Your task to perform on an android device: toggle wifi Image 0: 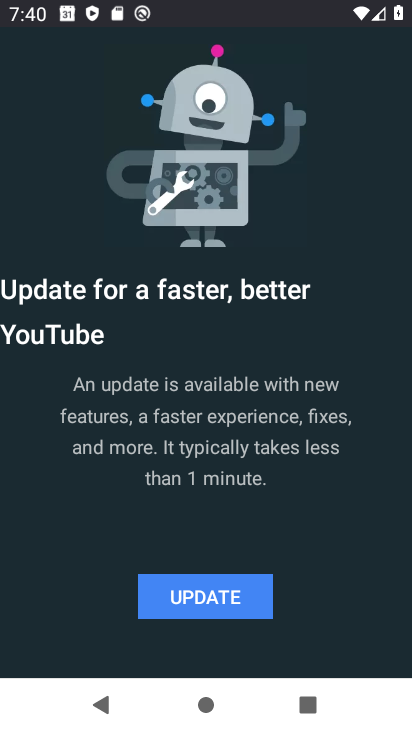
Step 0: press home button
Your task to perform on an android device: toggle wifi Image 1: 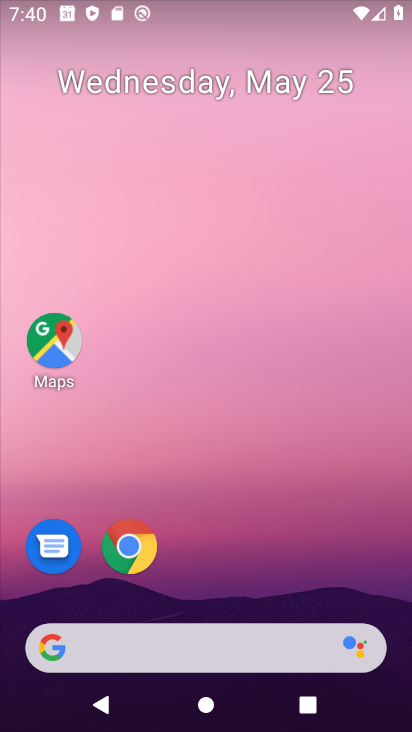
Step 1: drag from (381, 604) to (385, 260)
Your task to perform on an android device: toggle wifi Image 2: 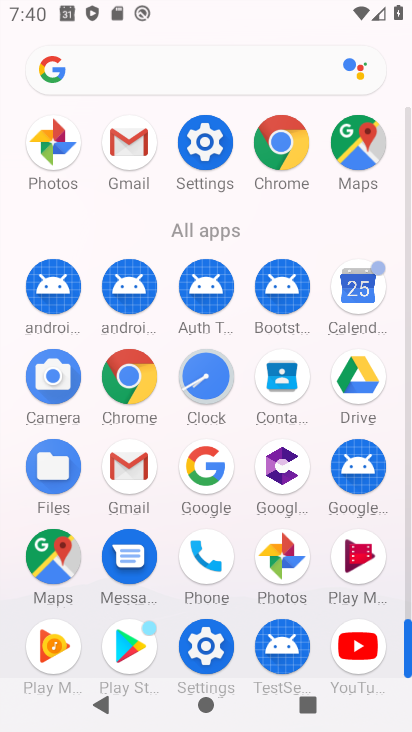
Step 2: click (208, 139)
Your task to perform on an android device: toggle wifi Image 3: 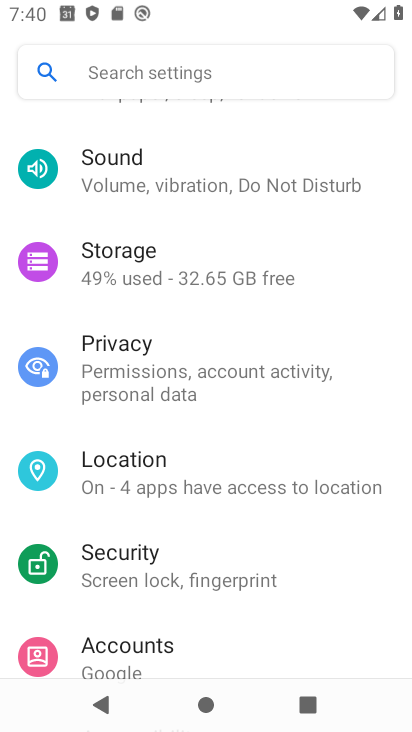
Step 3: drag from (348, 553) to (366, 438)
Your task to perform on an android device: toggle wifi Image 4: 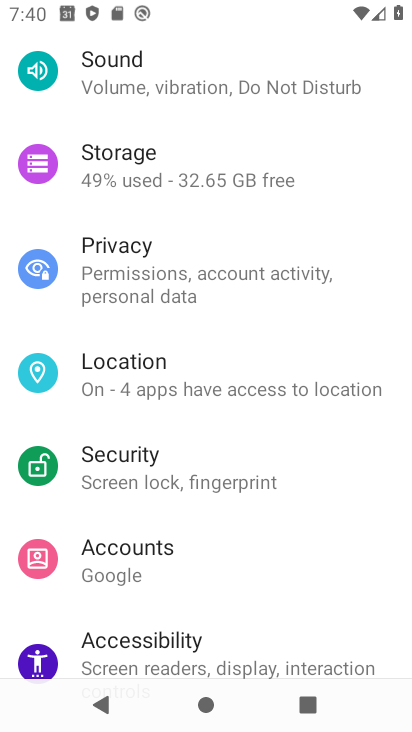
Step 4: drag from (366, 584) to (366, 482)
Your task to perform on an android device: toggle wifi Image 5: 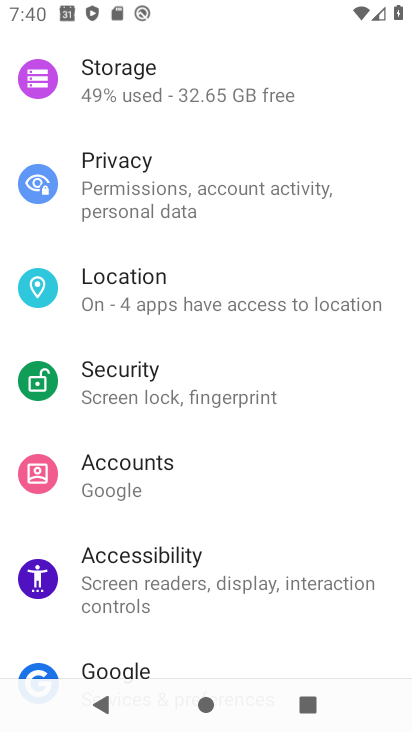
Step 5: drag from (361, 615) to (364, 490)
Your task to perform on an android device: toggle wifi Image 6: 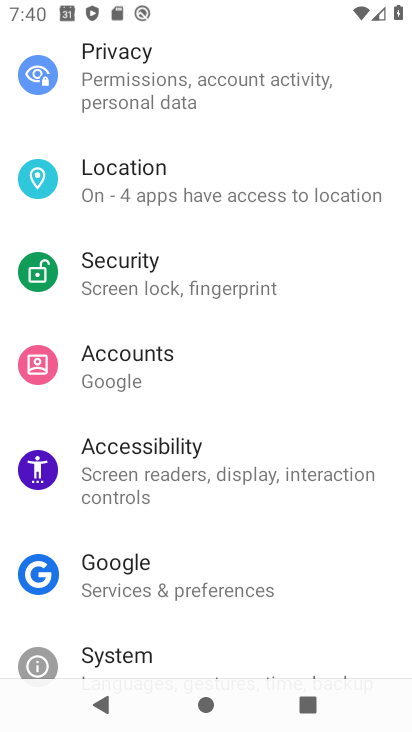
Step 6: drag from (365, 620) to (359, 513)
Your task to perform on an android device: toggle wifi Image 7: 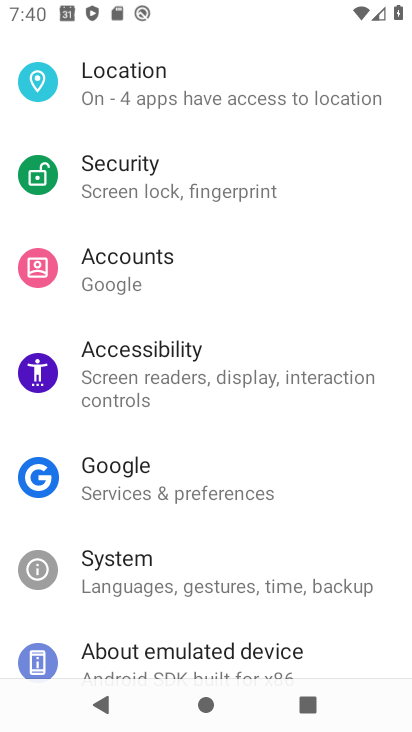
Step 7: drag from (363, 624) to (352, 498)
Your task to perform on an android device: toggle wifi Image 8: 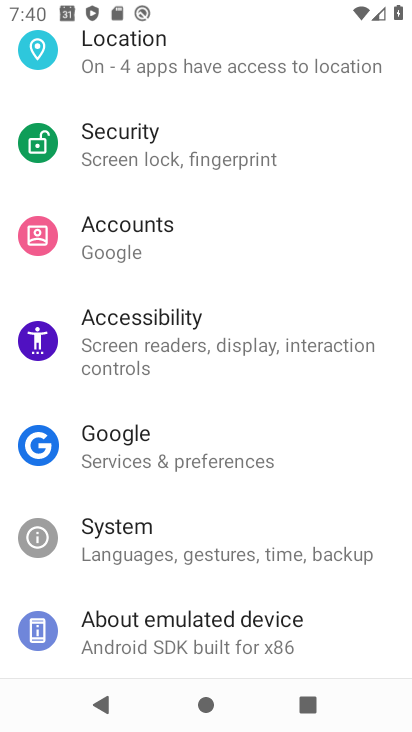
Step 8: drag from (355, 410) to (358, 490)
Your task to perform on an android device: toggle wifi Image 9: 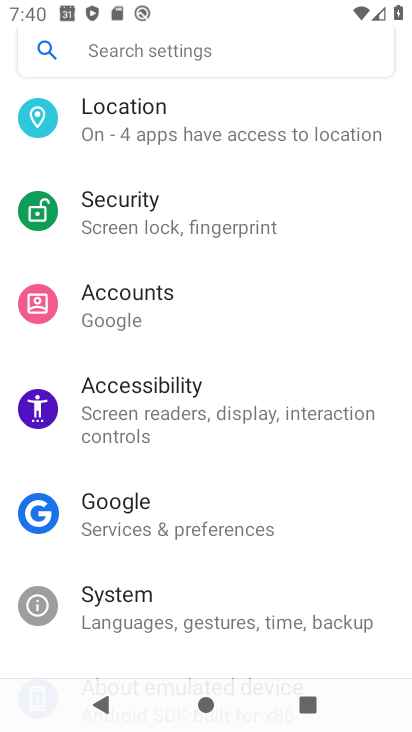
Step 9: drag from (356, 362) to (355, 450)
Your task to perform on an android device: toggle wifi Image 10: 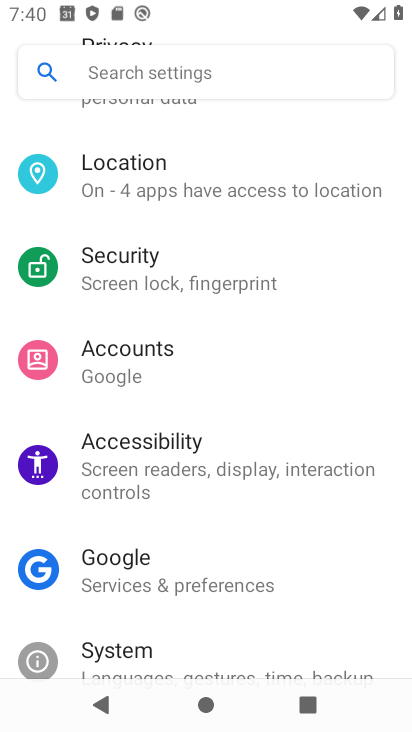
Step 10: drag from (363, 331) to (354, 413)
Your task to perform on an android device: toggle wifi Image 11: 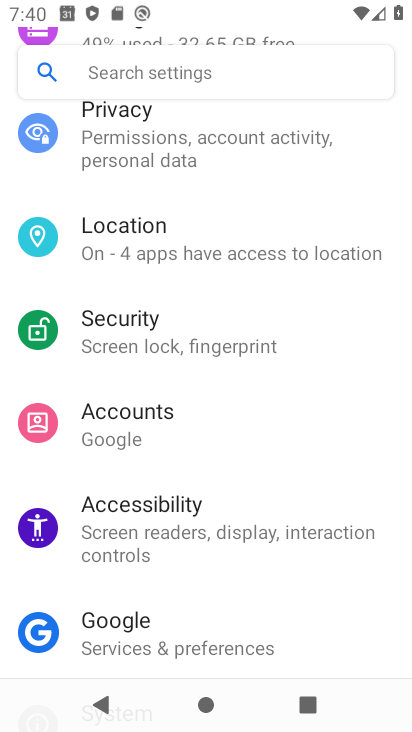
Step 11: drag from (365, 365) to (363, 421)
Your task to perform on an android device: toggle wifi Image 12: 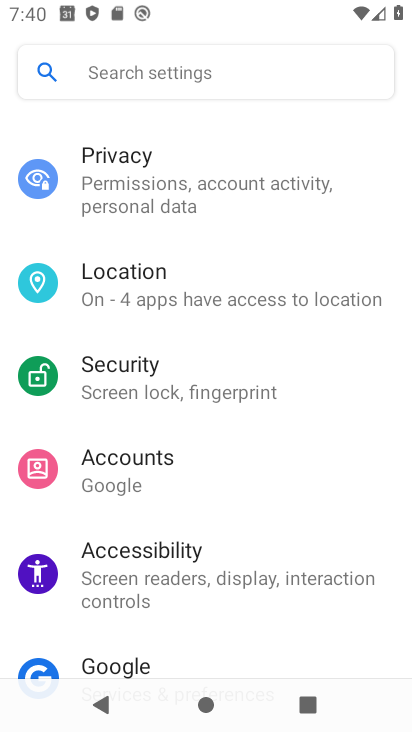
Step 12: drag from (375, 284) to (378, 363)
Your task to perform on an android device: toggle wifi Image 13: 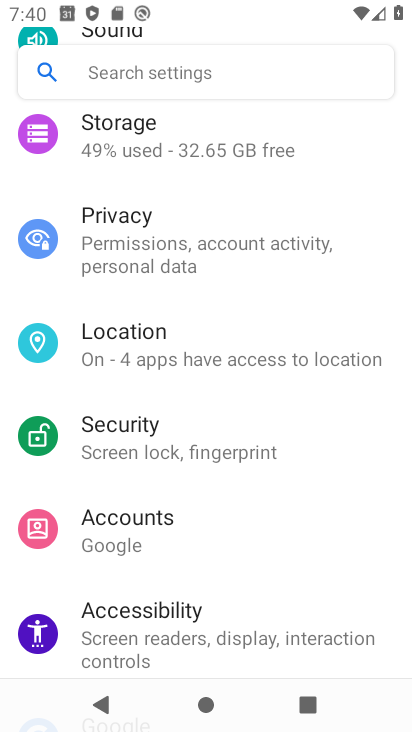
Step 13: drag from (379, 278) to (381, 359)
Your task to perform on an android device: toggle wifi Image 14: 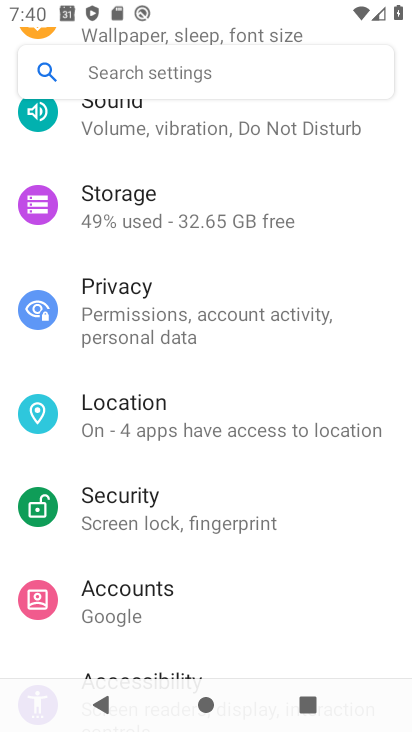
Step 14: drag from (385, 275) to (382, 356)
Your task to perform on an android device: toggle wifi Image 15: 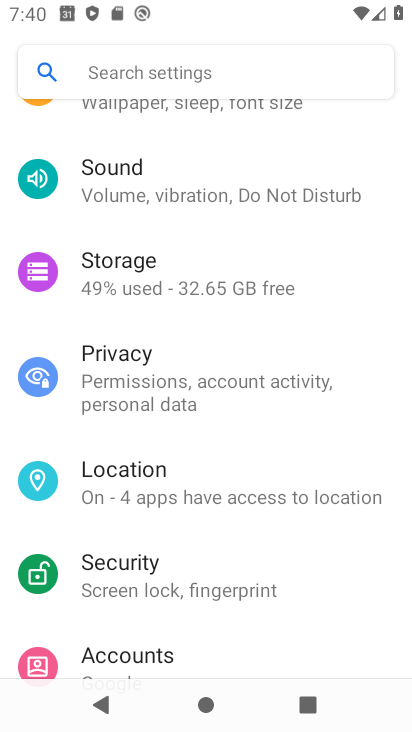
Step 15: drag from (376, 258) to (374, 336)
Your task to perform on an android device: toggle wifi Image 16: 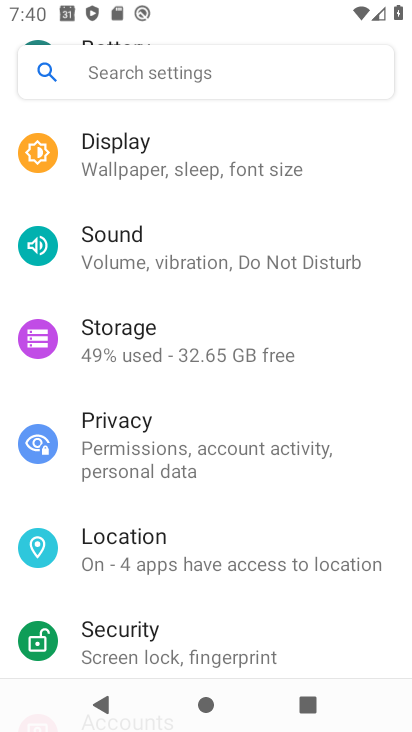
Step 16: drag from (374, 253) to (375, 336)
Your task to perform on an android device: toggle wifi Image 17: 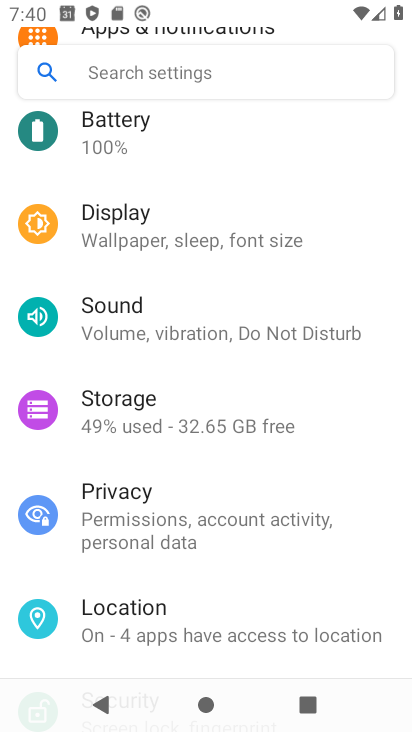
Step 17: drag from (381, 270) to (384, 334)
Your task to perform on an android device: toggle wifi Image 18: 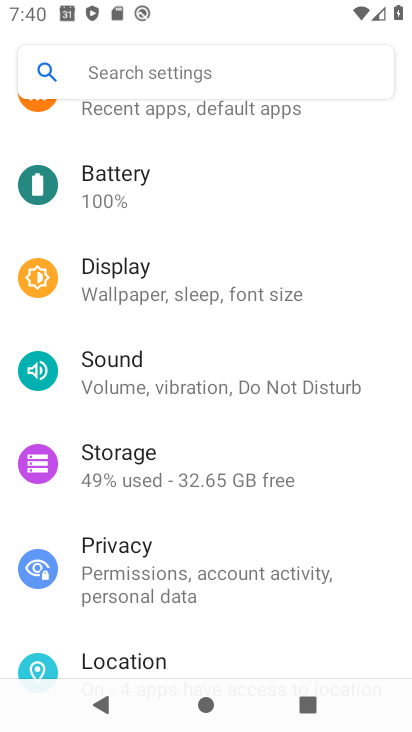
Step 18: drag from (385, 252) to (375, 320)
Your task to perform on an android device: toggle wifi Image 19: 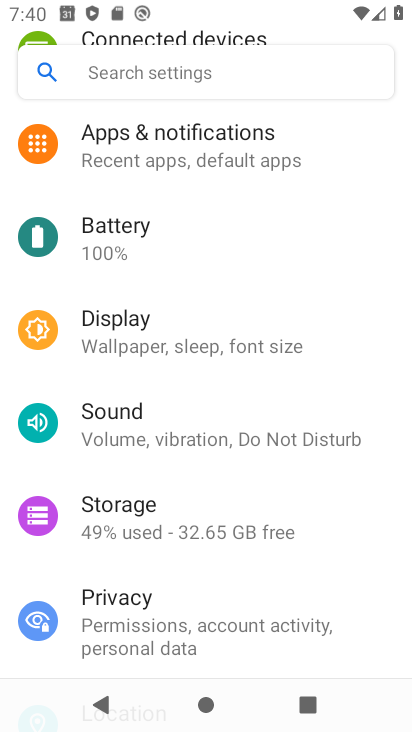
Step 19: drag from (367, 263) to (365, 344)
Your task to perform on an android device: toggle wifi Image 20: 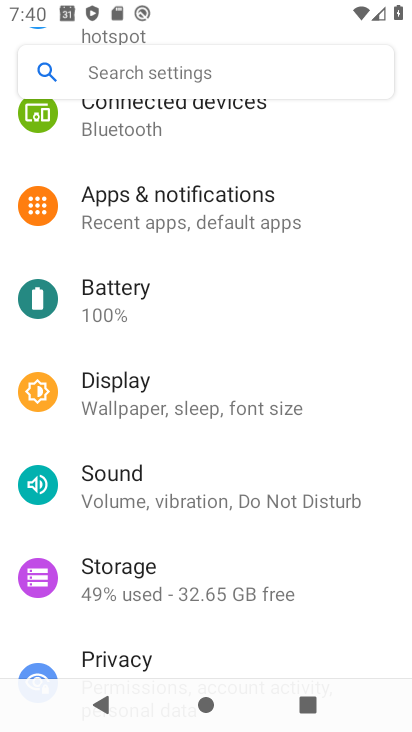
Step 20: drag from (380, 269) to (372, 356)
Your task to perform on an android device: toggle wifi Image 21: 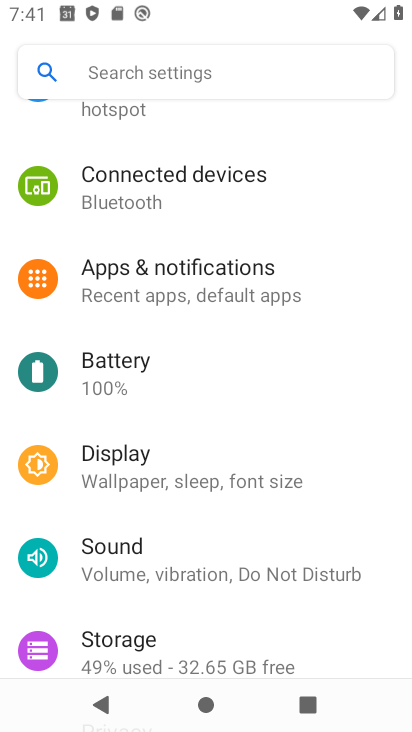
Step 21: drag from (364, 252) to (369, 330)
Your task to perform on an android device: toggle wifi Image 22: 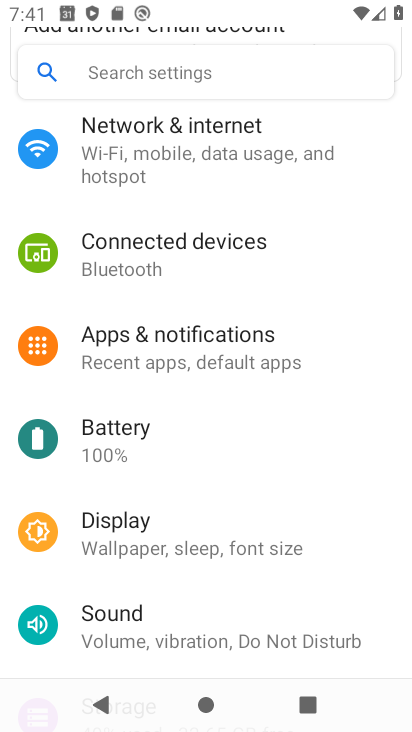
Step 22: drag from (377, 236) to (356, 334)
Your task to perform on an android device: toggle wifi Image 23: 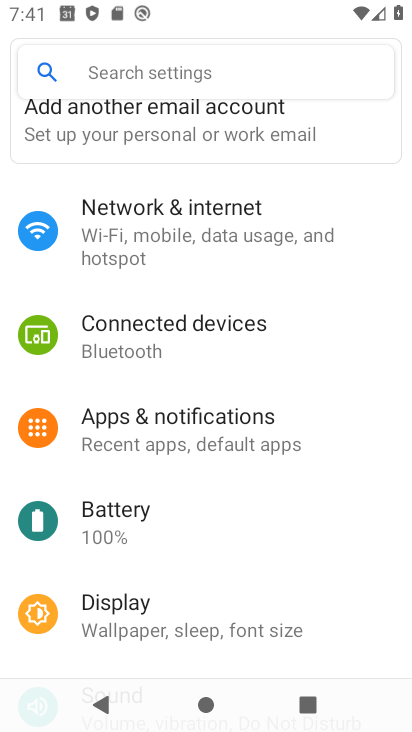
Step 23: drag from (361, 241) to (364, 338)
Your task to perform on an android device: toggle wifi Image 24: 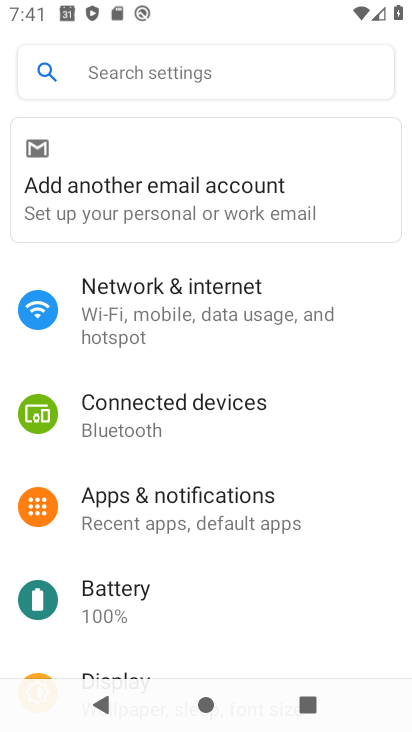
Step 24: click (315, 322)
Your task to perform on an android device: toggle wifi Image 25: 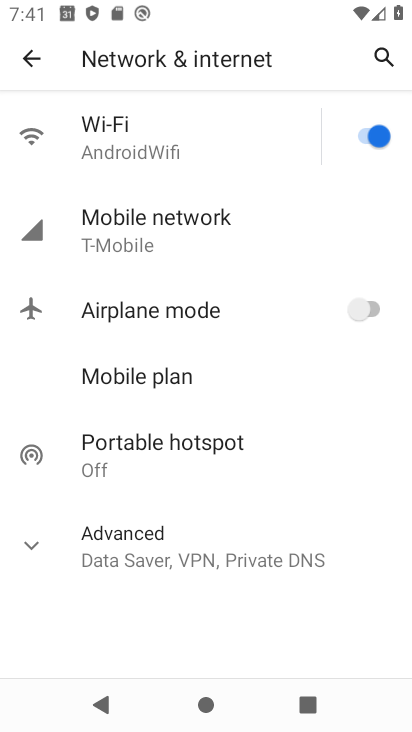
Step 25: click (380, 140)
Your task to perform on an android device: toggle wifi Image 26: 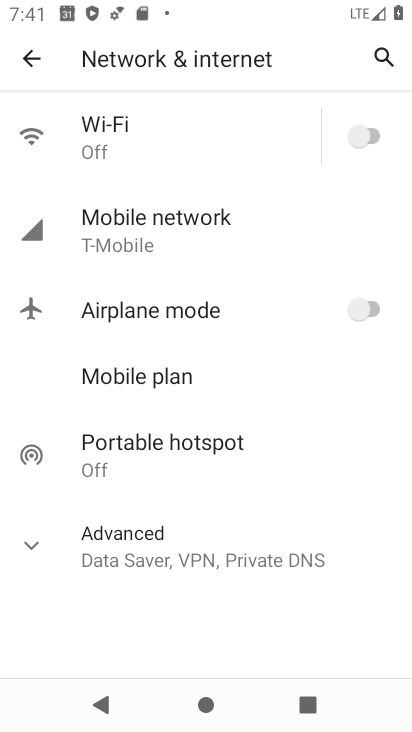
Step 26: task complete